Your task to perform on an android device: change alarm snooze length Image 0: 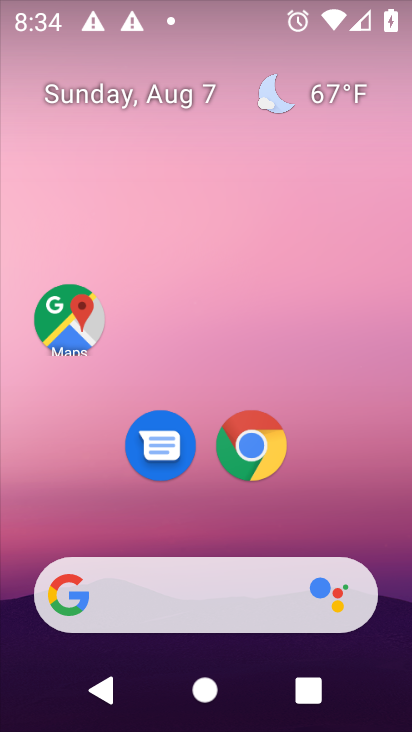
Step 0: press home button
Your task to perform on an android device: change alarm snooze length Image 1: 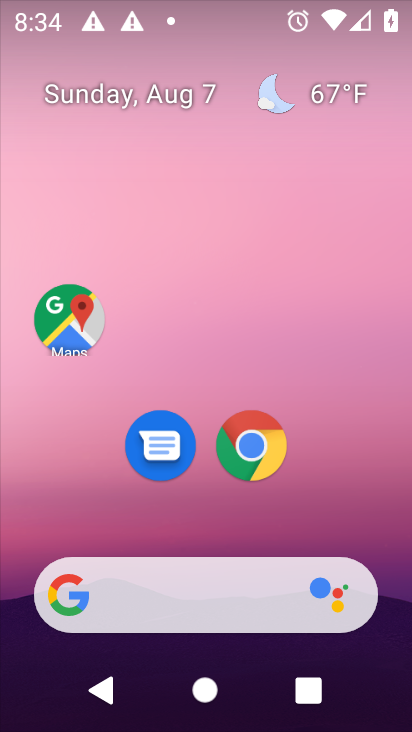
Step 1: drag from (193, 541) to (245, 2)
Your task to perform on an android device: change alarm snooze length Image 2: 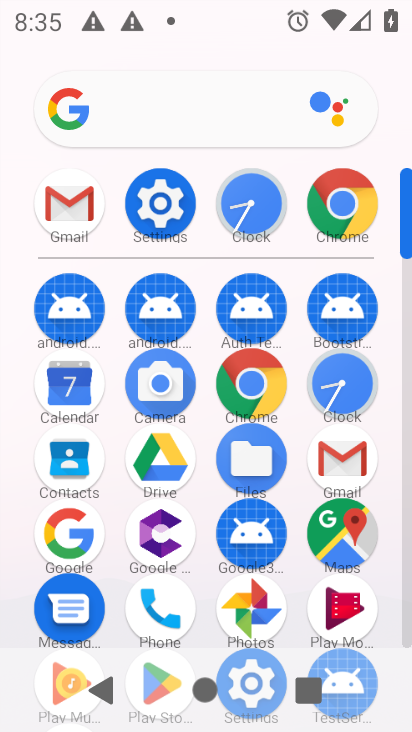
Step 2: click (250, 195)
Your task to perform on an android device: change alarm snooze length Image 3: 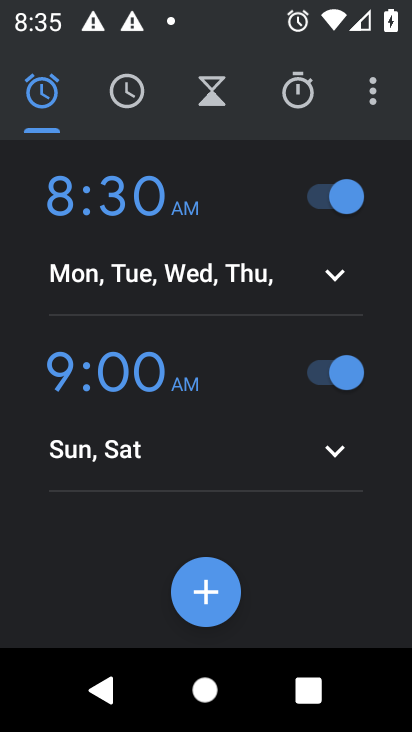
Step 3: click (369, 95)
Your task to perform on an android device: change alarm snooze length Image 4: 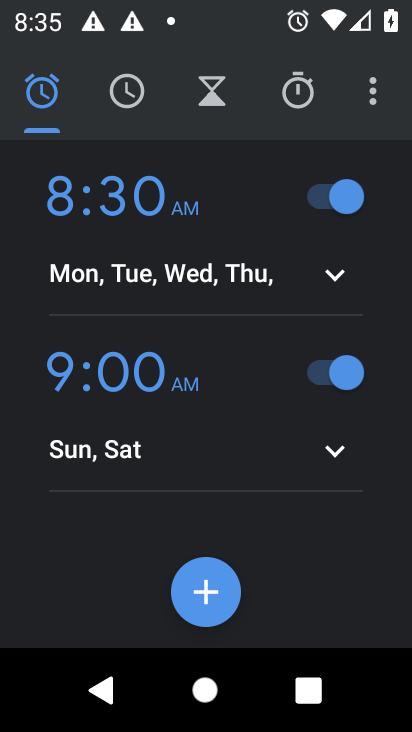
Step 4: click (373, 87)
Your task to perform on an android device: change alarm snooze length Image 5: 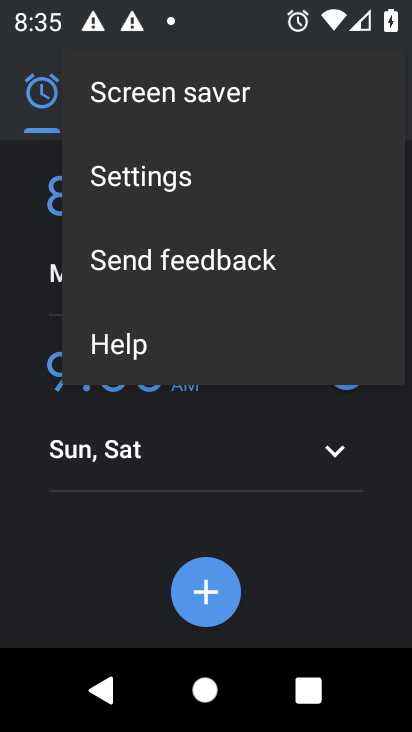
Step 5: click (219, 194)
Your task to perform on an android device: change alarm snooze length Image 6: 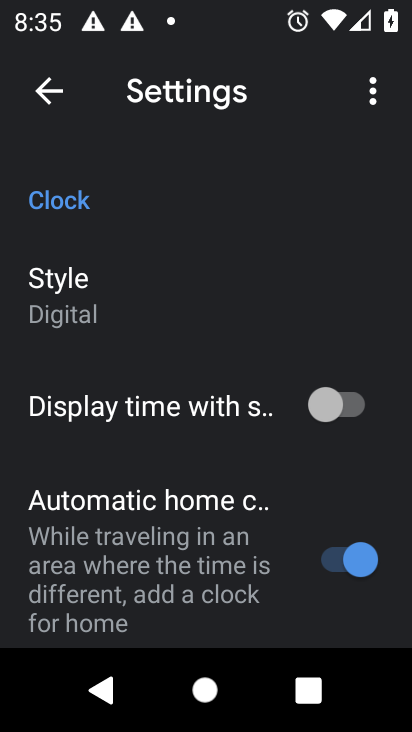
Step 6: drag from (245, 591) to (252, 93)
Your task to perform on an android device: change alarm snooze length Image 7: 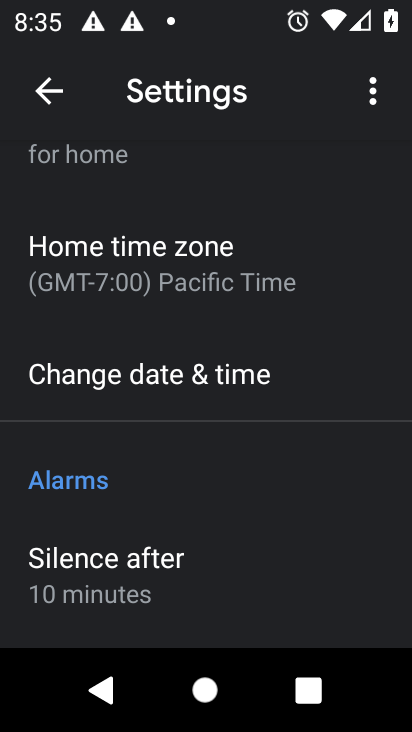
Step 7: drag from (196, 603) to (244, 71)
Your task to perform on an android device: change alarm snooze length Image 8: 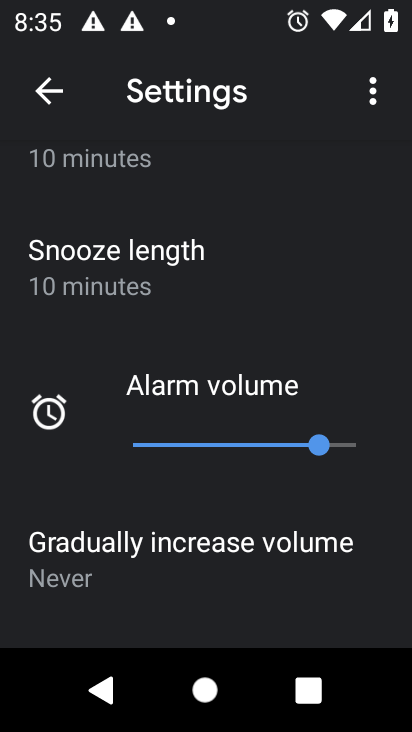
Step 8: click (201, 277)
Your task to perform on an android device: change alarm snooze length Image 9: 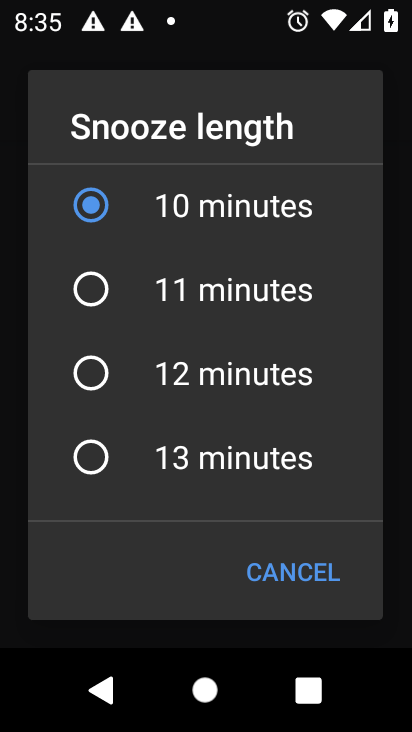
Step 9: drag from (124, 224) to (143, 503)
Your task to perform on an android device: change alarm snooze length Image 10: 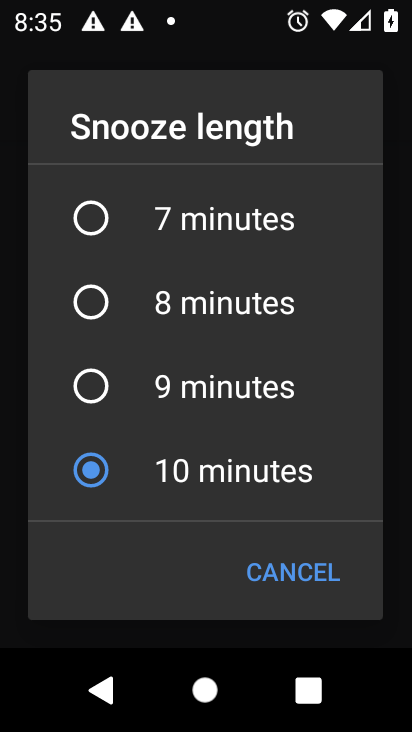
Step 10: click (94, 218)
Your task to perform on an android device: change alarm snooze length Image 11: 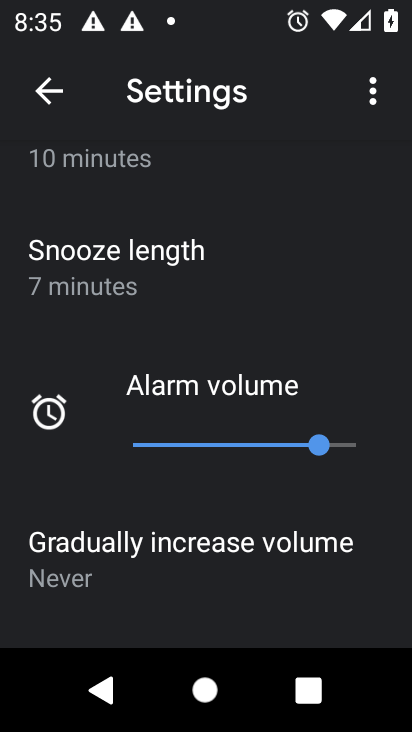
Step 11: task complete